Your task to perform on an android device: Open Android settings Image 0: 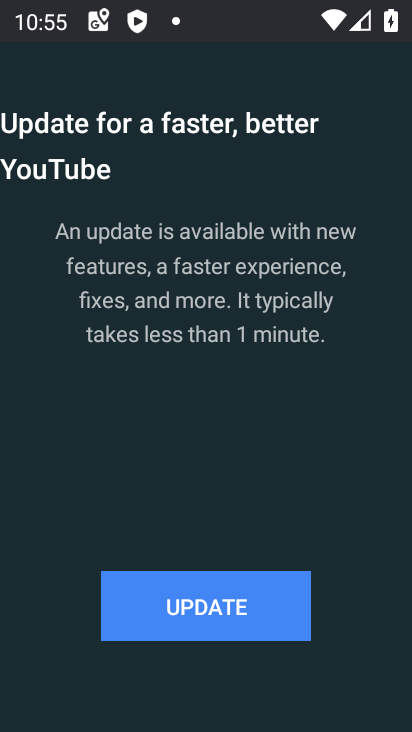
Step 0: press back button
Your task to perform on an android device: Open Android settings Image 1: 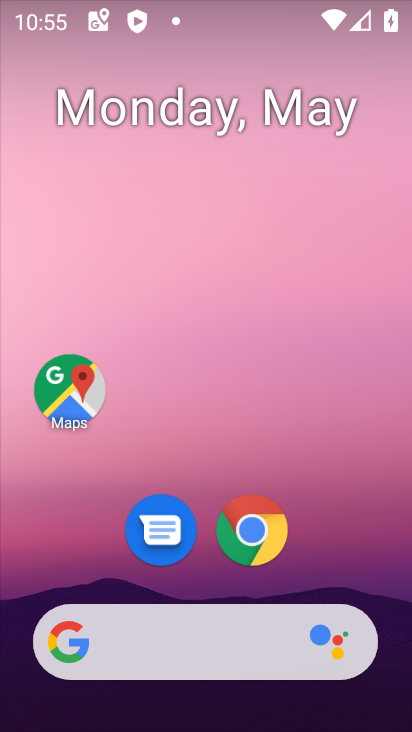
Step 1: drag from (328, 559) to (215, 94)
Your task to perform on an android device: Open Android settings Image 2: 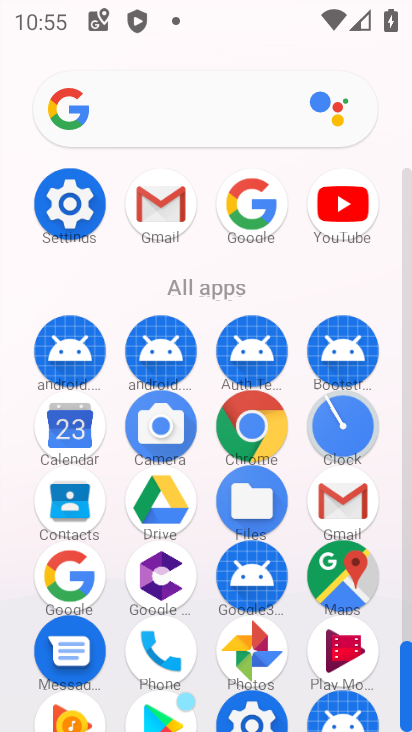
Step 2: click (73, 204)
Your task to perform on an android device: Open Android settings Image 3: 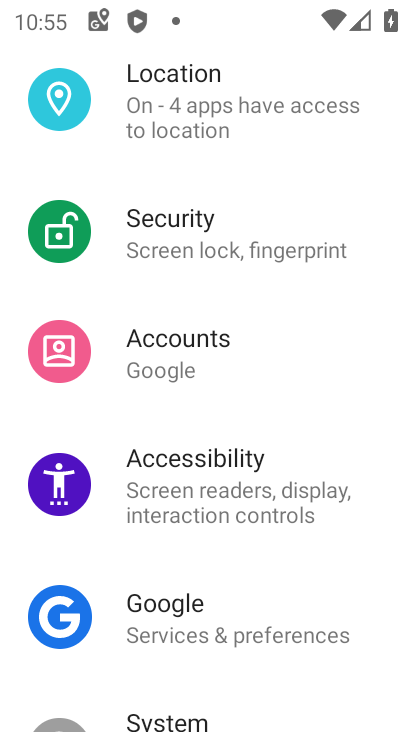
Step 3: task complete